Your task to perform on an android device: turn off airplane mode Image 0: 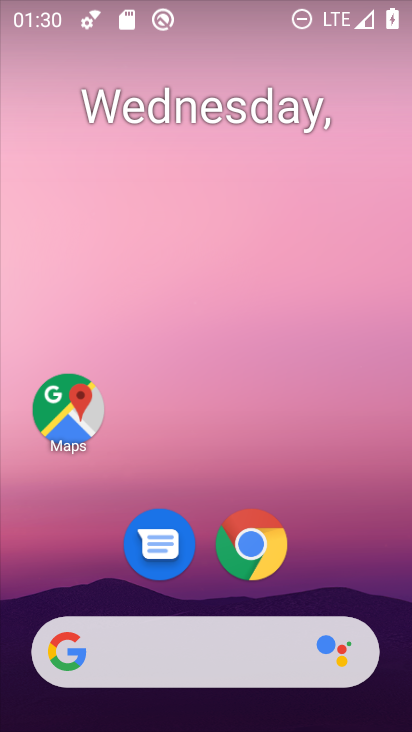
Step 0: drag from (317, 586) to (338, 60)
Your task to perform on an android device: turn off airplane mode Image 1: 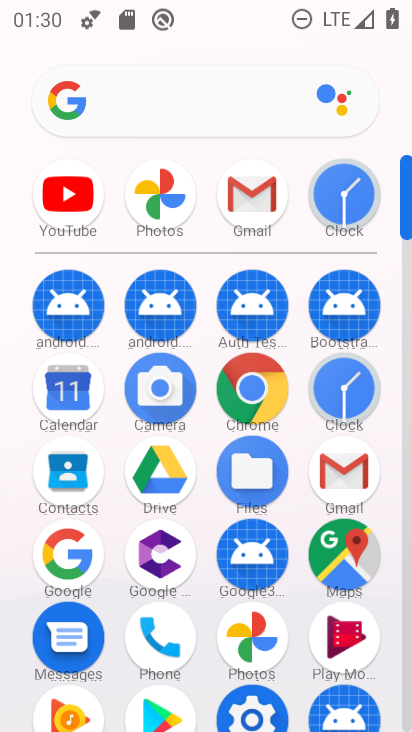
Step 1: drag from (210, 602) to (213, 275)
Your task to perform on an android device: turn off airplane mode Image 2: 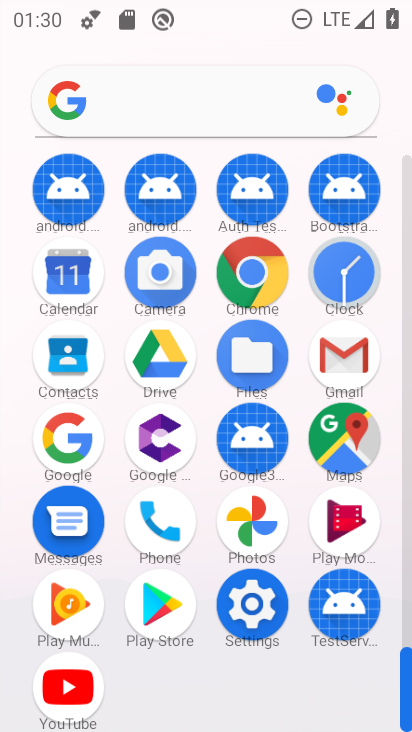
Step 2: click (254, 613)
Your task to perform on an android device: turn off airplane mode Image 3: 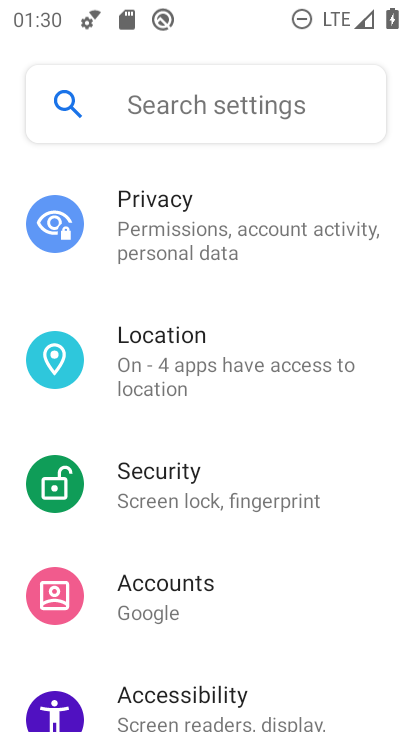
Step 3: drag from (244, 269) to (244, 440)
Your task to perform on an android device: turn off airplane mode Image 4: 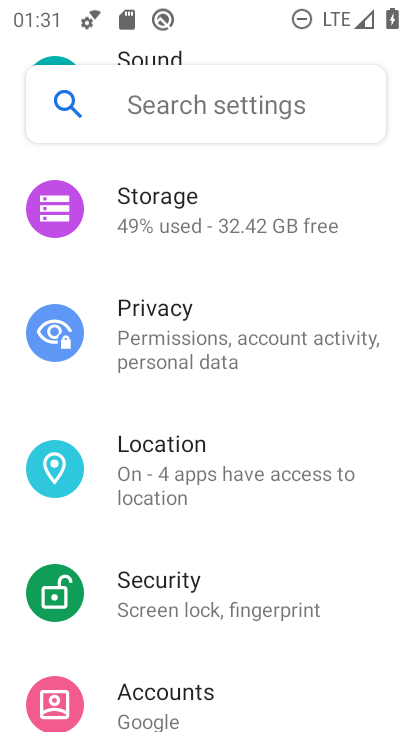
Step 4: drag from (245, 266) to (236, 431)
Your task to perform on an android device: turn off airplane mode Image 5: 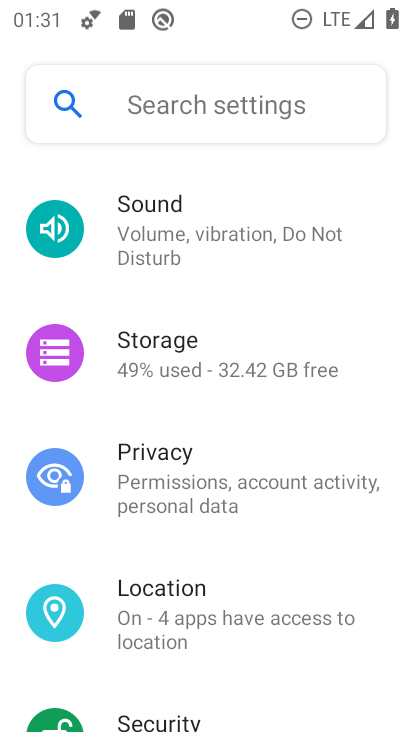
Step 5: drag from (239, 266) to (228, 438)
Your task to perform on an android device: turn off airplane mode Image 6: 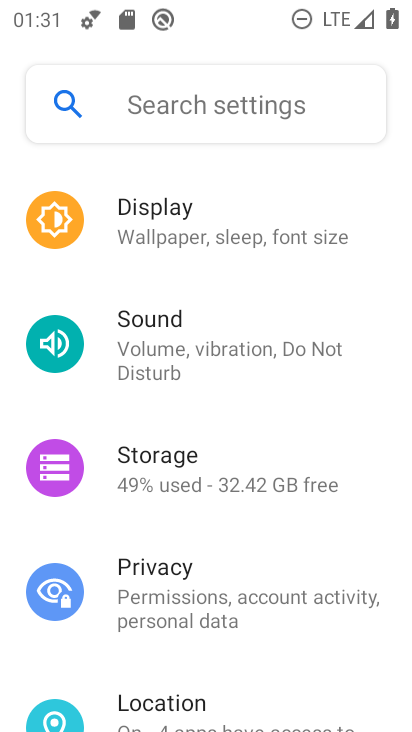
Step 6: drag from (210, 323) to (195, 474)
Your task to perform on an android device: turn off airplane mode Image 7: 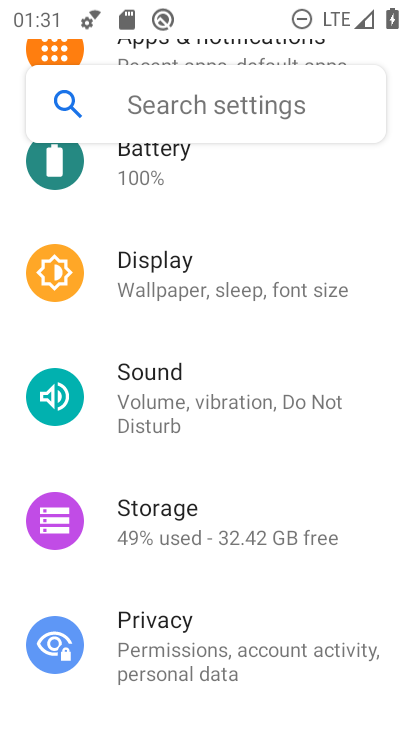
Step 7: drag from (114, 165) to (127, 360)
Your task to perform on an android device: turn off airplane mode Image 8: 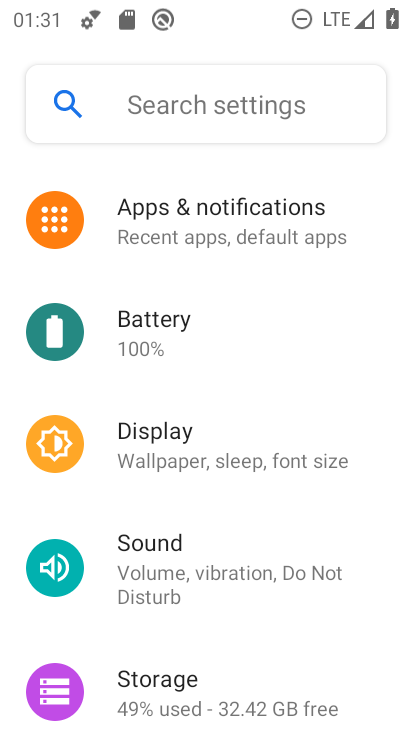
Step 8: drag from (133, 252) to (116, 398)
Your task to perform on an android device: turn off airplane mode Image 9: 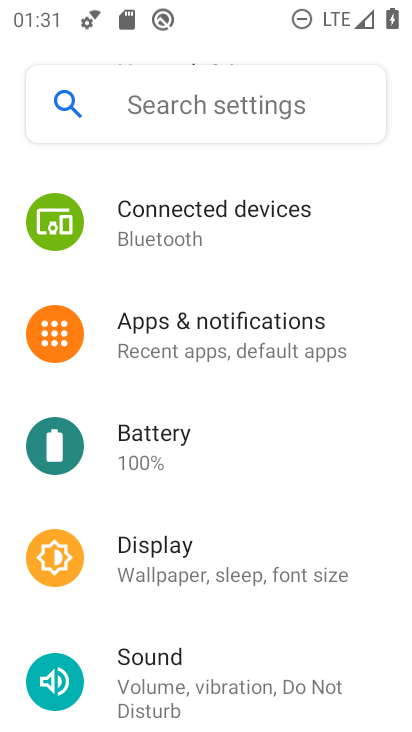
Step 9: drag from (112, 221) to (98, 506)
Your task to perform on an android device: turn off airplane mode Image 10: 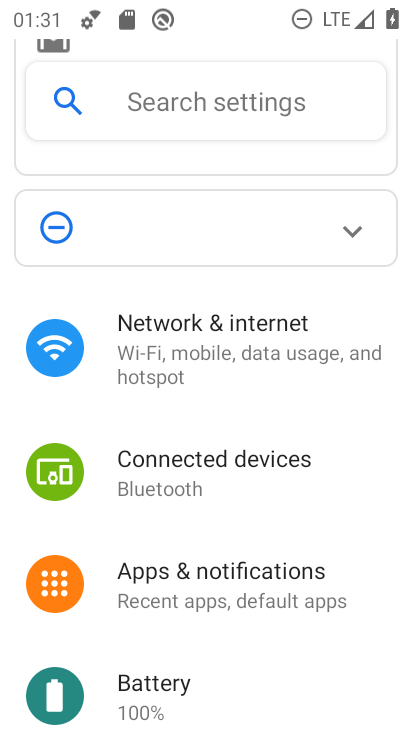
Step 10: click (201, 186)
Your task to perform on an android device: turn off airplane mode Image 11: 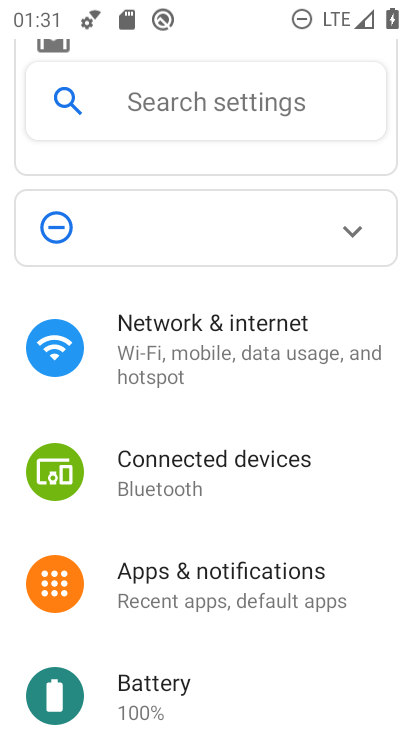
Step 11: click (135, 368)
Your task to perform on an android device: turn off airplane mode Image 12: 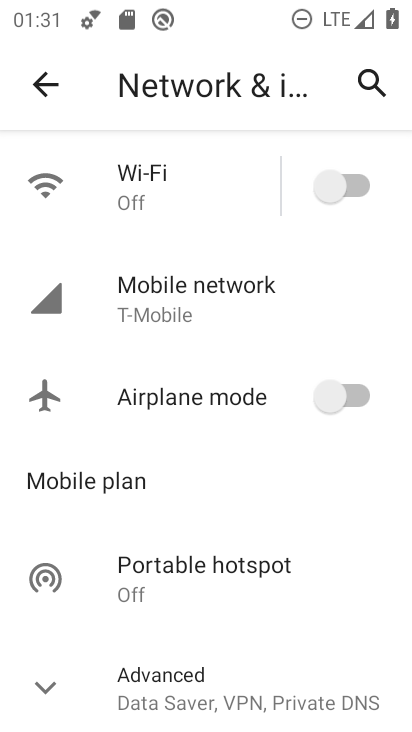
Step 12: task complete